Your task to perform on an android device: set default search engine in the chrome app Image 0: 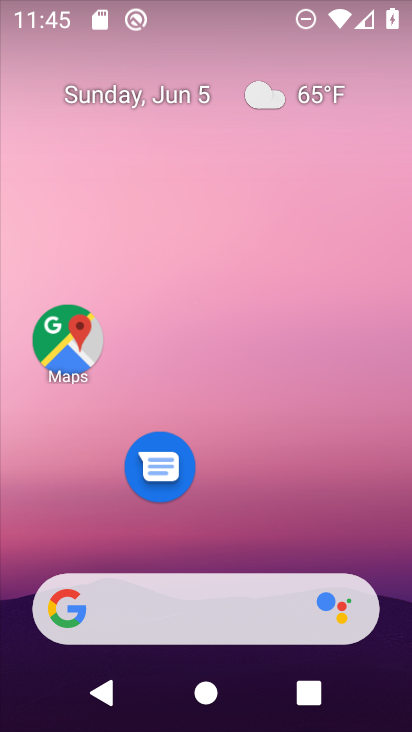
Step 0: drag from (331, 515) to (379, 14)
Your task to perform on an android device: set default search engine in the chrome app Image 1: 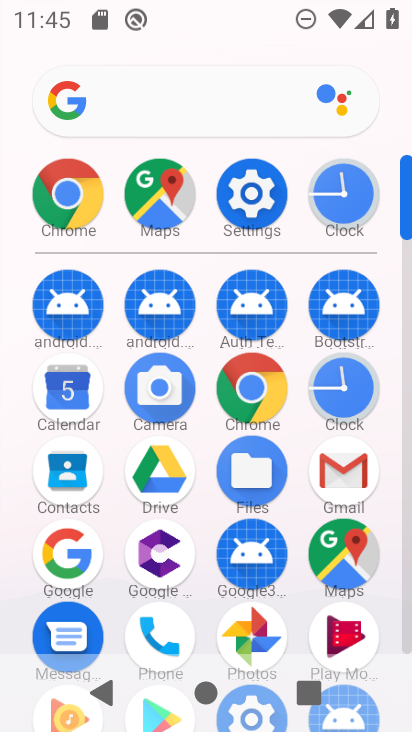
Step 1: click (28, 186)
Your task to perform on an android device: set default search engine in the chrome app Image 2: 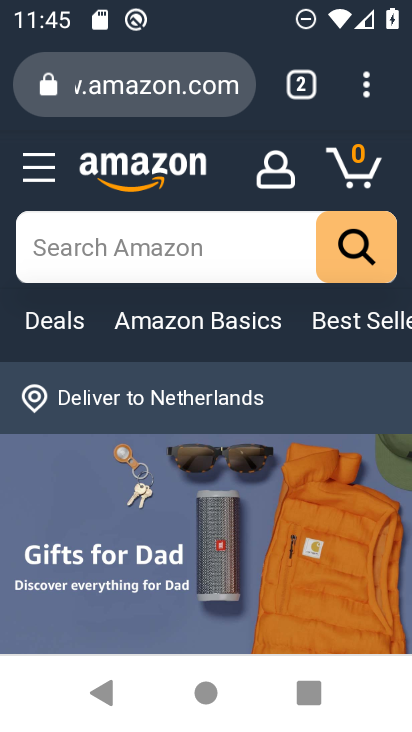
Step 2: click (219, 80)
Your task to perform on an android device: set default search engine in the chrome app Image 3: 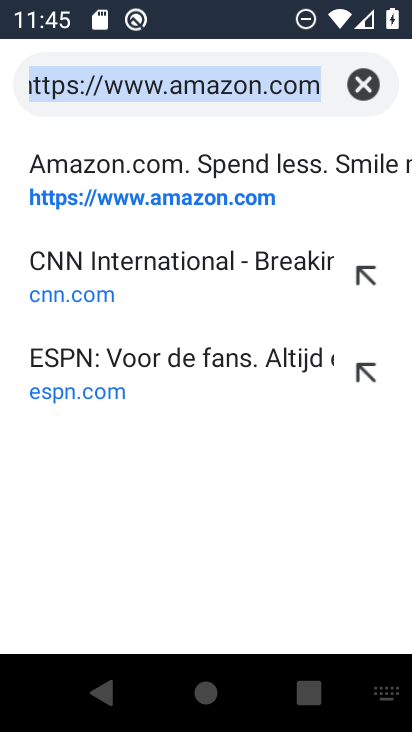
Step 3: click (365, 73)
Your task to perform on an android device: set default search engine in the chrome app Image 4: 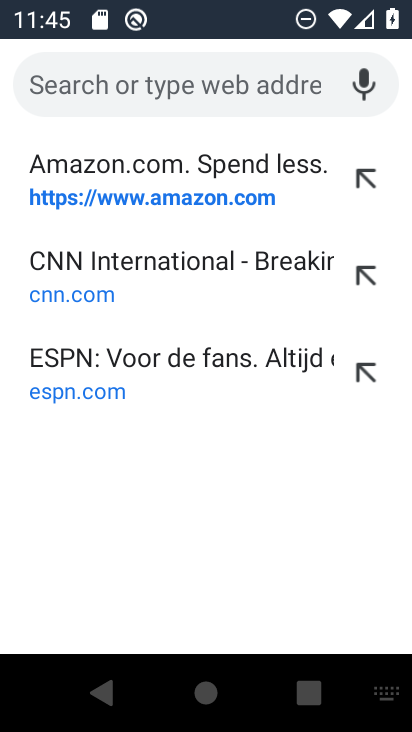
Step 4: press back button
Your task to perform on an android device: set default search engine in the chrome app Image 5: 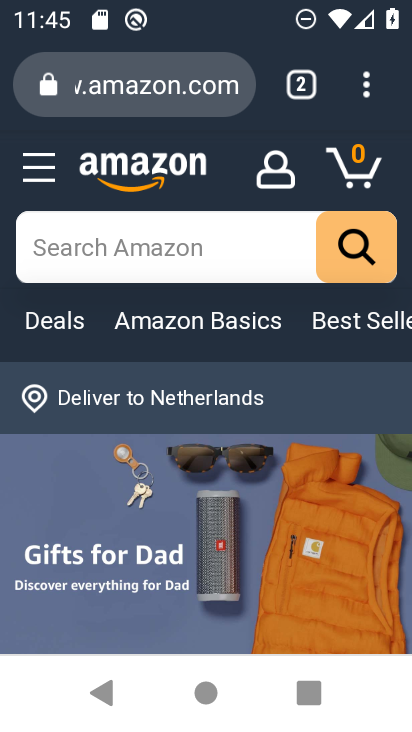
Step 5: drag from (365, 86) to (173, 512)
Your task to perform on an android device: set default search engine in the chrome app Image 6: 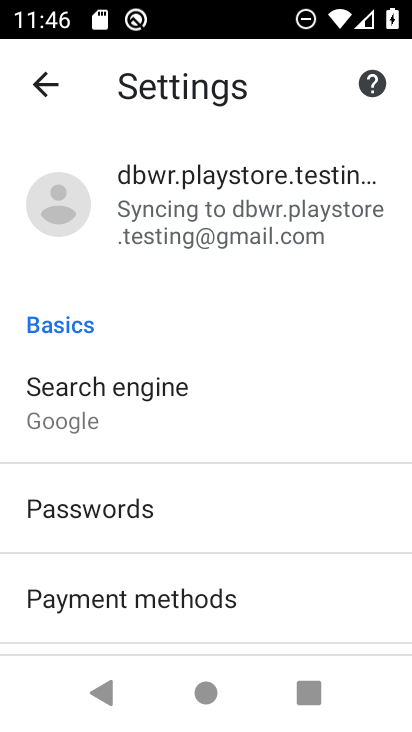
Step 6: drag from (237, 556) to (300, 496)
Your task to perform on an android device: set default search engine in the chrome app Image 7: 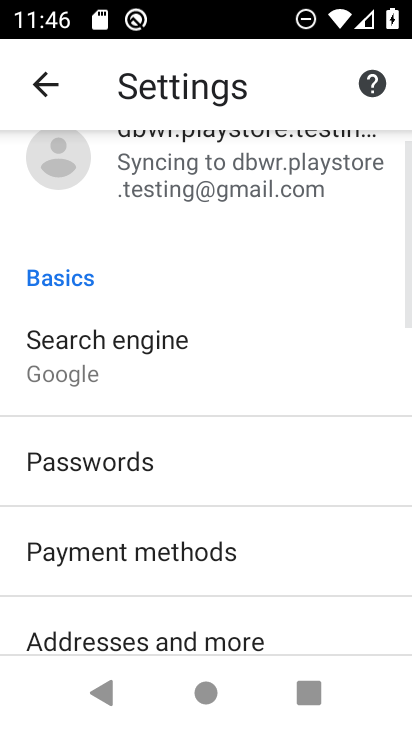
Step 7: click (207, 368)
Your task to perform on an android device: set default search engine in the chrome app Image 8: 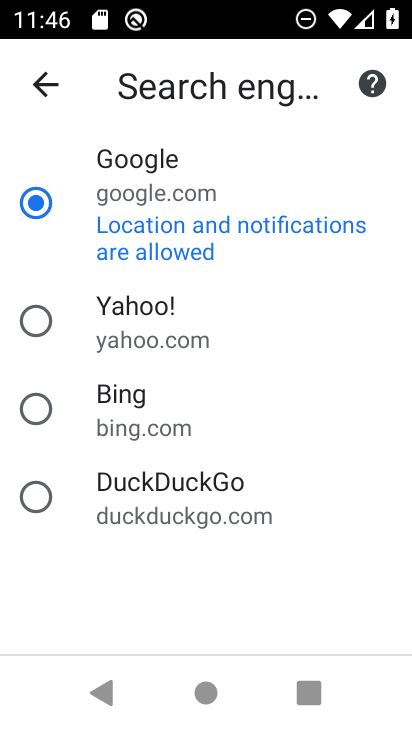
Step 8: task complete